Your task to perform on an android device: change alarm snooze length Image 0: 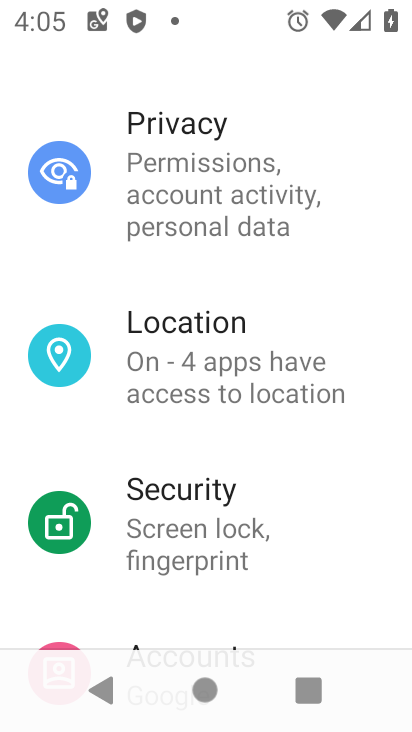
Step 0: press home button
Your task to perform on an android device: change alarm snooze length Image 1: 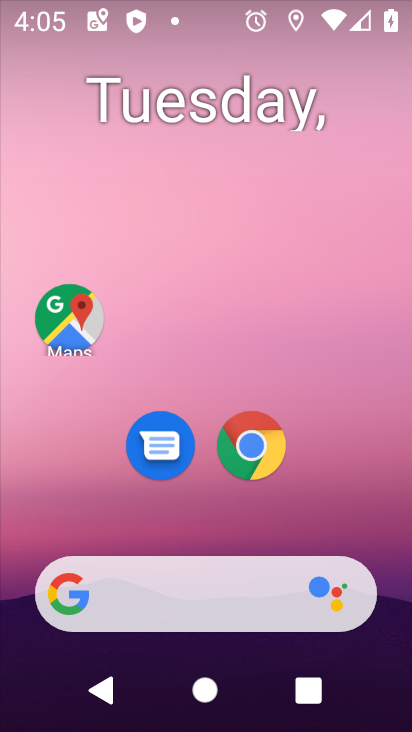
Step 1: drag from (295, 601) to (272, 51)
Your task to perform on an android device: change alarm snooze length Image 2: 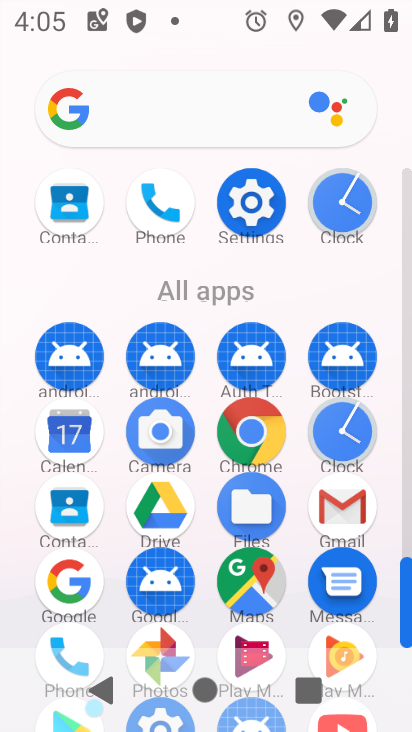
Step 2: click (331, 438)
Your task to perform on an android device: change alarm snooze length Image 3: 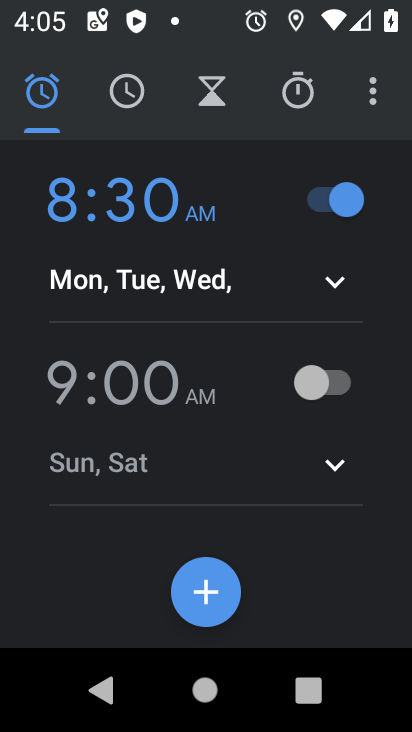
Step 3: click (366, 92)
Your task to perform on an android device: change alarm snooze length Image 4: 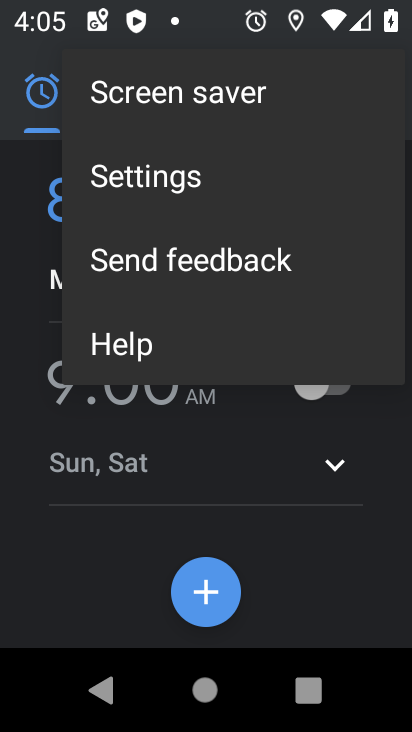
Step 4: click (233, 182)
Your task to perform on an android device: change alarm snooze length Image 5: 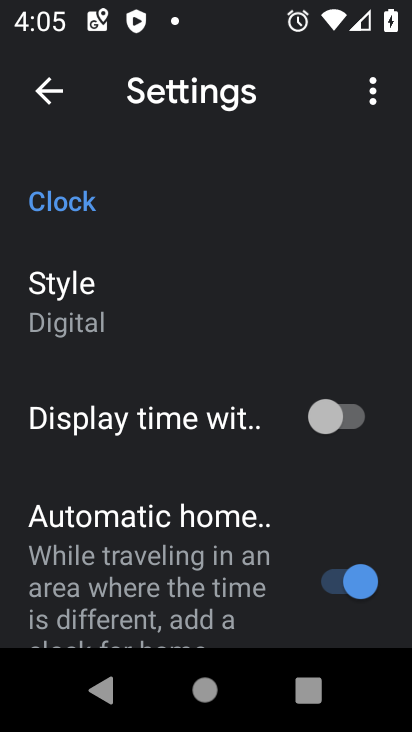
Step 5: drag from (200, 543) to (211, 173)
Your task to perform on an android device: change alarm snooze length Image 6: 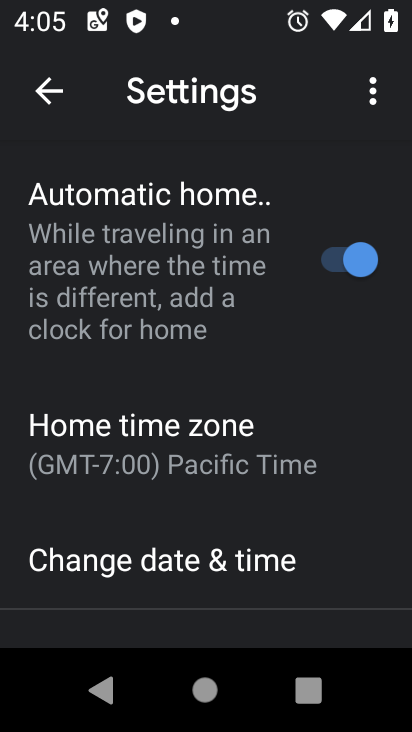
Step 6: drag from (271, 591) to (271, 192)
Your task to perform on an android device: change alarm snooze length Image 7: 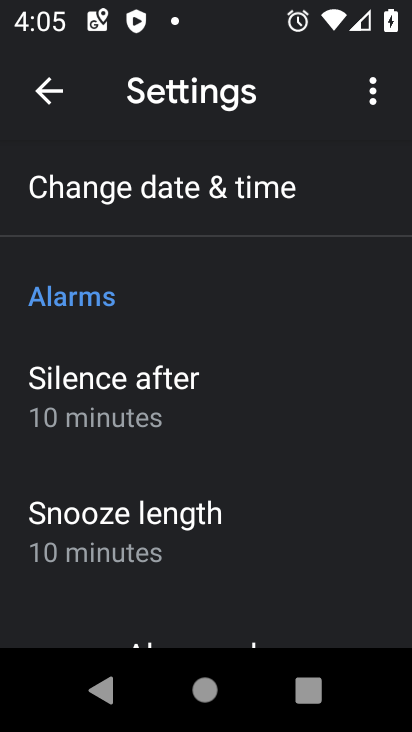
Step 7: click (209, 530)
Your task to perform on an android device: change alarm snooze length Image 8: 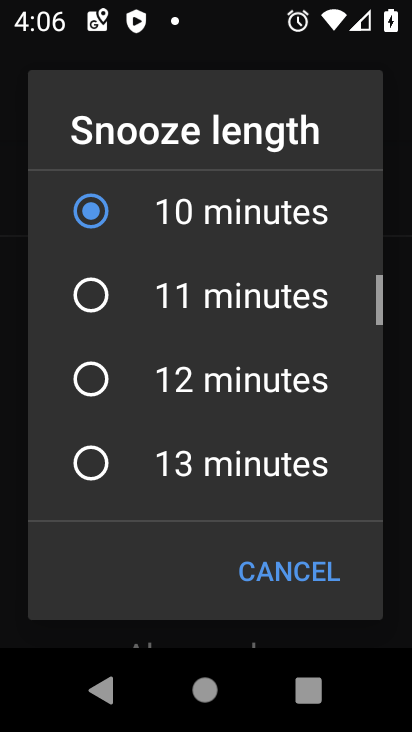
Step 8: click (162, 286)
Your task to perform on an android device: change alarm snooze length Image 9: 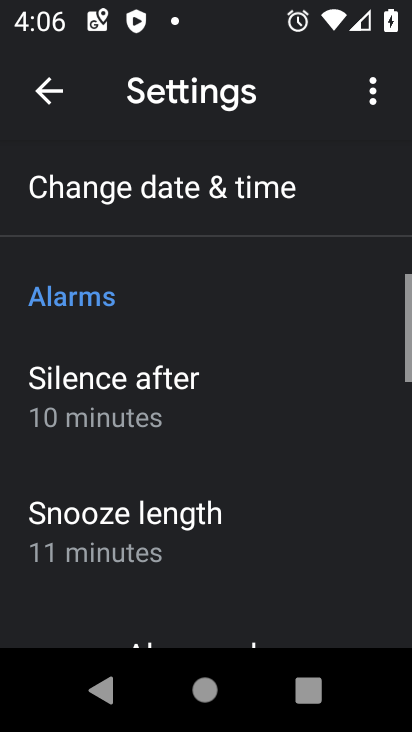
Step 9: task complete